Your task to perform on an android device: Open calendar and show me the second week of next month Image 0: 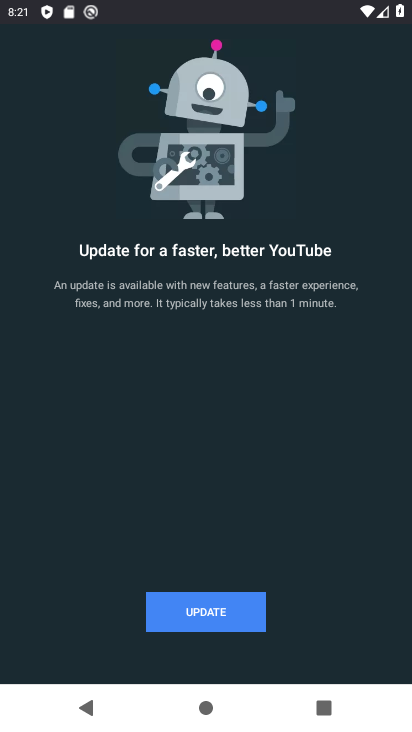
Step 0: press home button
Your task to perform on an android device: Open calendar and show me the second week of next month Image 1: 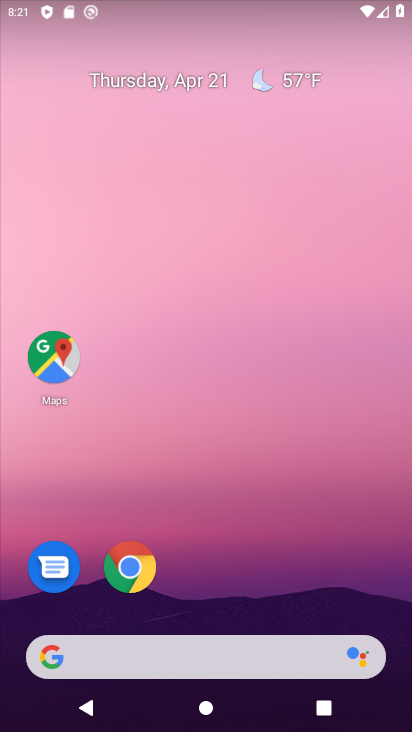
Step 1: drag from (230, 624) to (292, 50)
Your task to perform on an android device: Open calendar and show me the second week of next month Image 2: 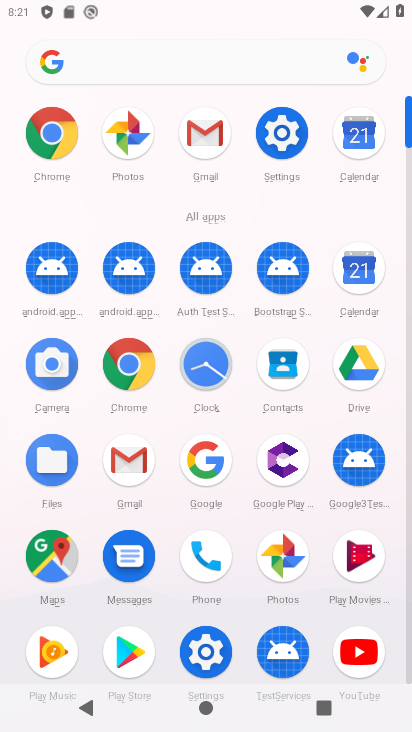
Step 2: click (358, 276)
Your task to perform on an android device: Open calendar and show me the second week of next month Image 3: 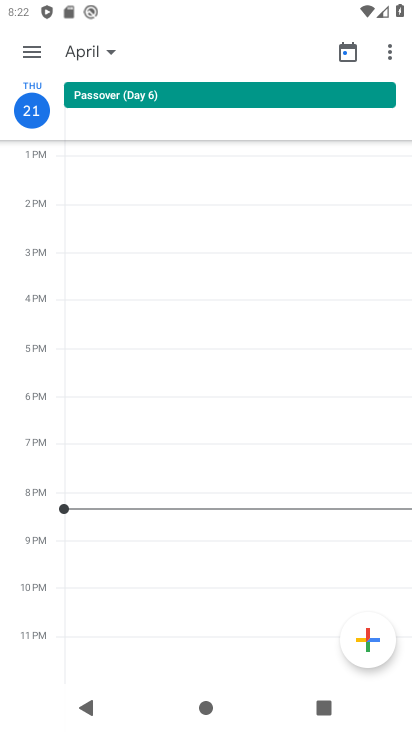
Step 3: click (23, 48)
Your task to perform on an android device: Open calendar and show me the second week of next month Image 4: 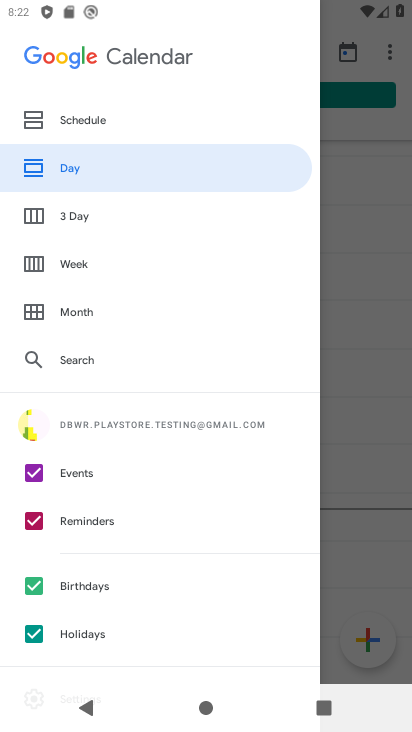
Step 4: click (75, 273)
Your task to perform on an android device: Open calendar and show me the second week of next month Image 5: 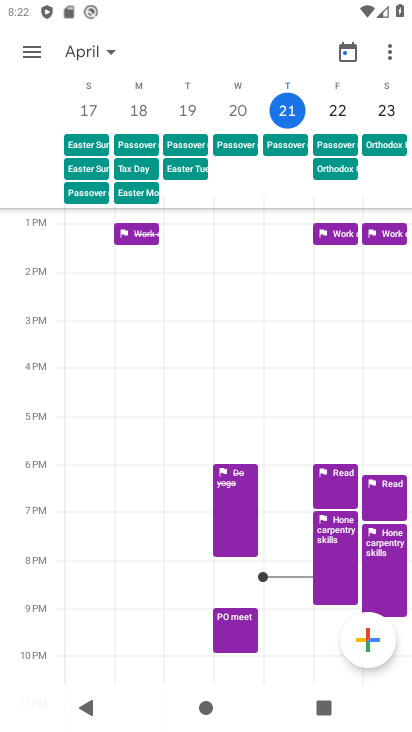
Step 5: task complete